Your task to perform on an android device: turn on data saver in the chrome app Image 0: 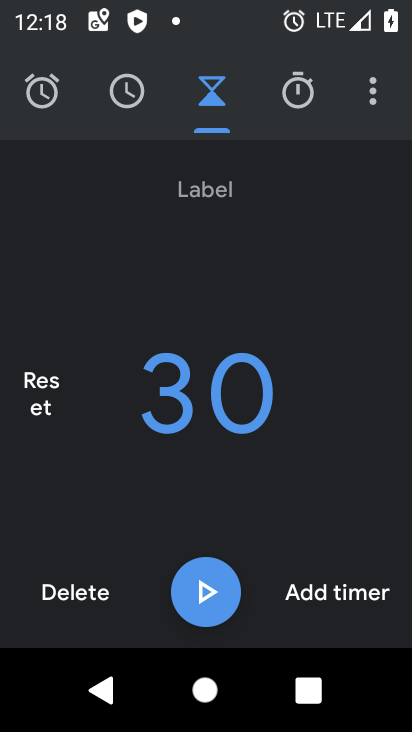
Step 0: press home button
Your task to perform on an android device: turn on data saver in the chrome app Image 1: 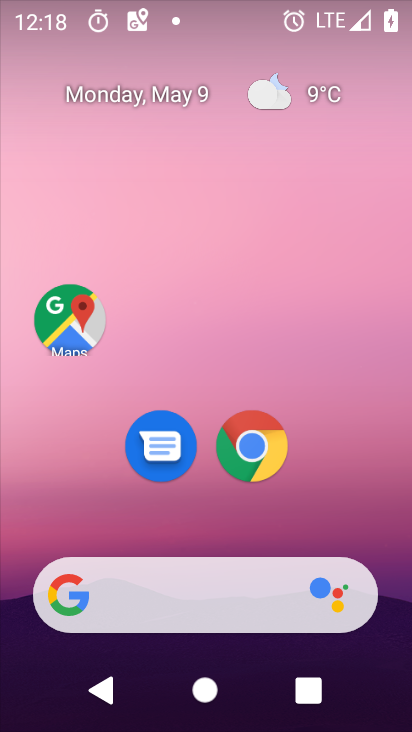
Step 1: click (263, 453)
Your task to perform on an android device: turn on data saver in the chrome app Image 2: 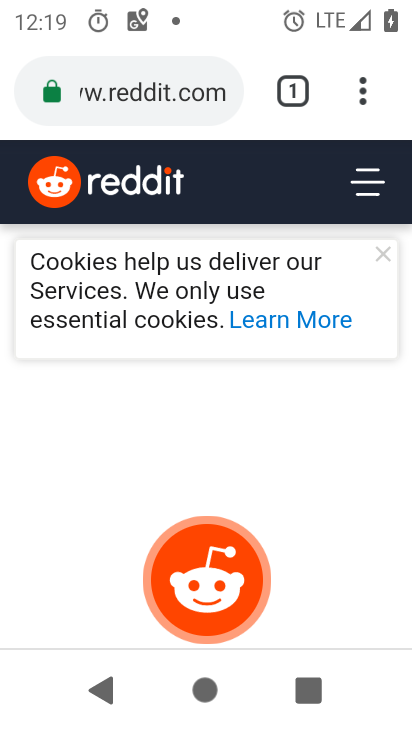
Step 2: drag from (361, 86) to (98, 480)
Your task to perform on an android device: turn on data saver in the chrome app Image 3: 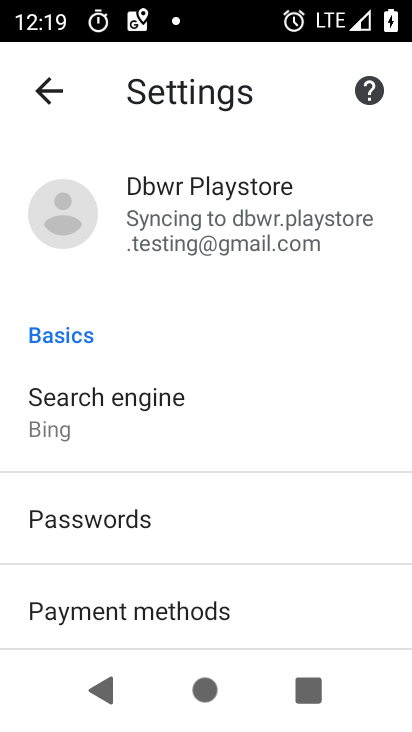
Step 3: drag from (128, 545) to (148, 135)
Your task to perform on an android device: turn on data saver in the chrome app Image 4: 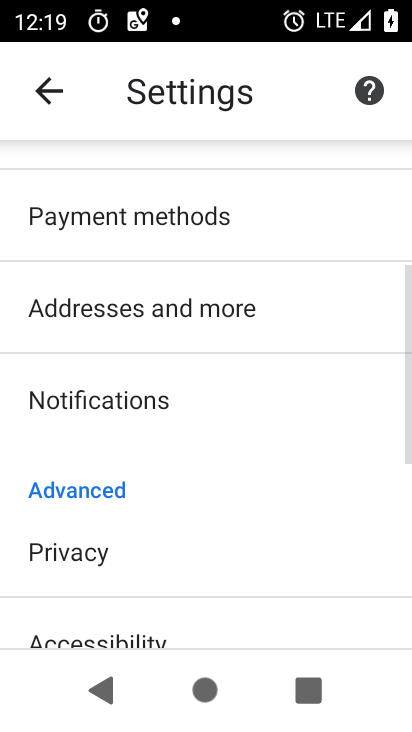
Step 4: drag from (106, 503) to (90, 94)
Your task to perform on an android device: turn on data saver in the chrome app Image 5: 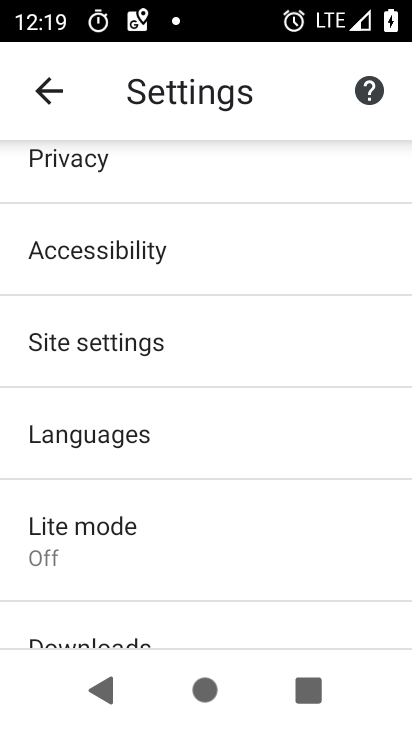
Step 5: click (87, 531)
Your task to perform on an android device: turn on data saver in the chrome app Image 6: 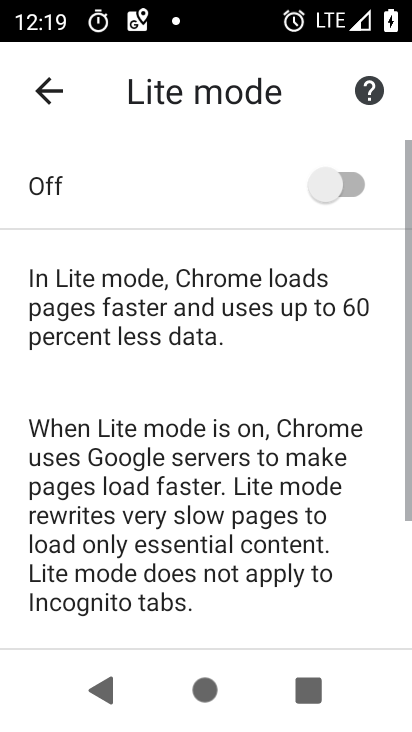
Step 6: click (352, 178)
Your task to perform on an android device: turn on data saver in the chrome app Image 7: 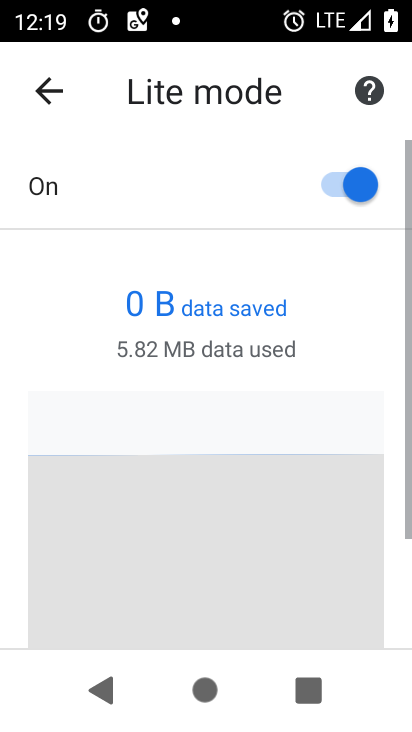
Step 7: task complete